Your task to perform on an android device: show emergency info Image 0: 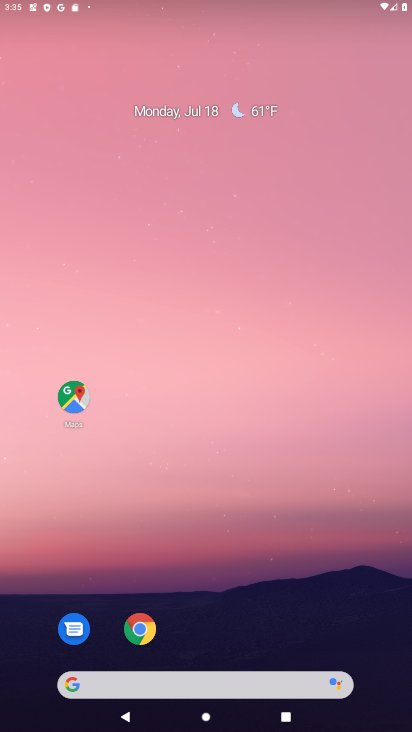
Step 0: press home button
Your task to perform on an android device: show emergency info Image 1: 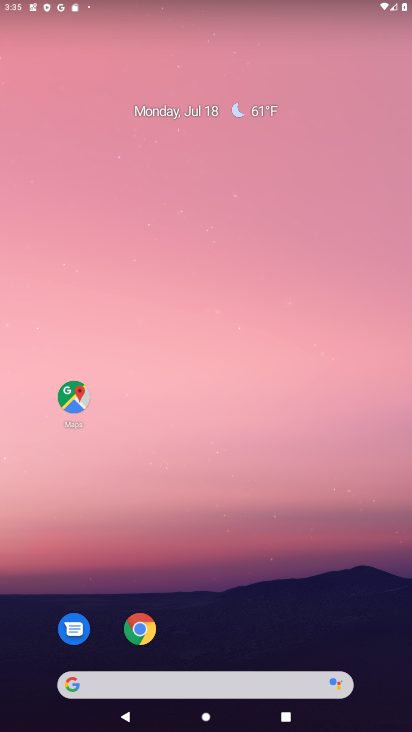
Step 1: drag from (199, 388) to (199, 335)
Your task to perform on an android device: show emergency info Image 2: 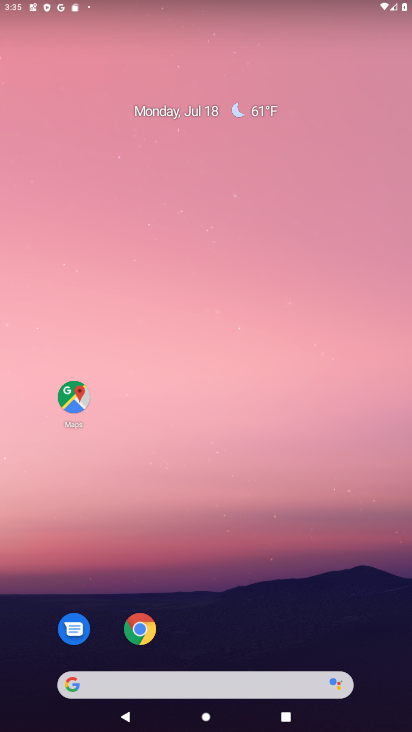
Step 2: drag from (131, 666) to (179, 179)
Your task to perform on an android device: show emergency info Image 3: 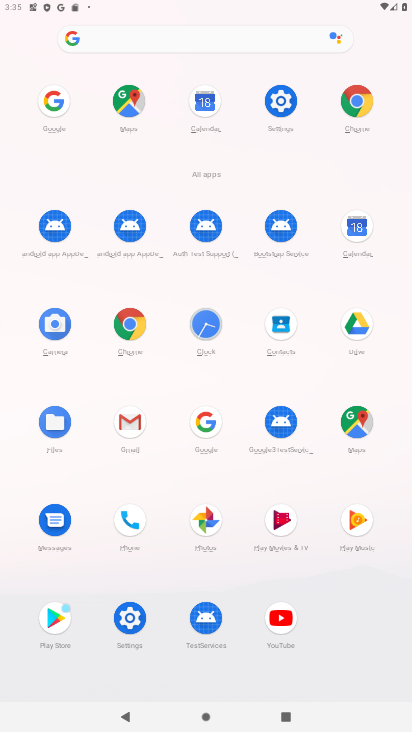
Step 3: click (287, 100)
Your task to perform on an android device: show emergency info Image 4: 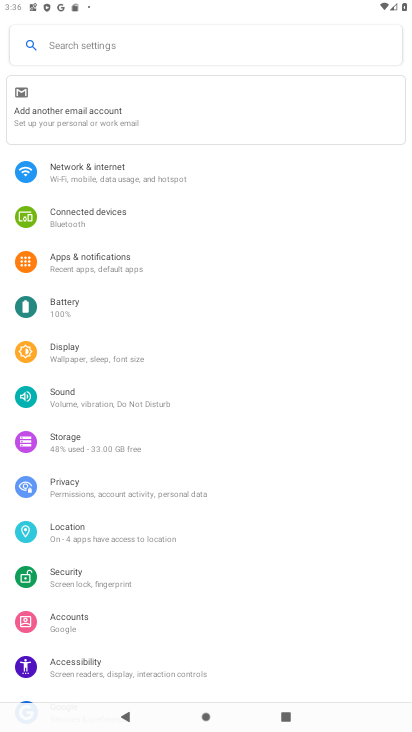
Step 4: drag from (67, 674) to (109, 305)
Your task to perform on an android device: show emergency info Image 5: 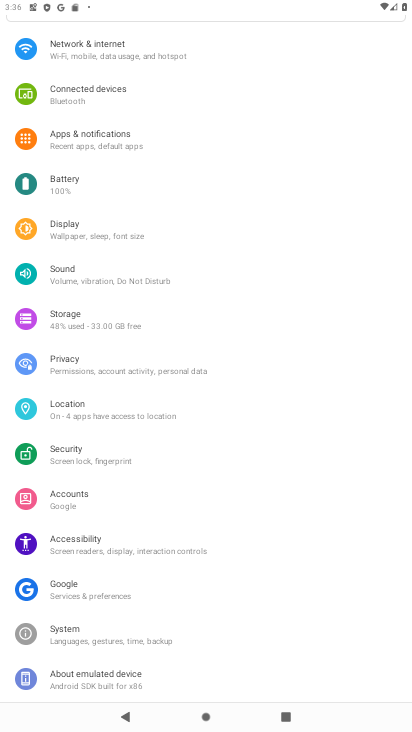
Step 5: click (61, 669)
Your task to perform on an android device: show emergency info Image 6: 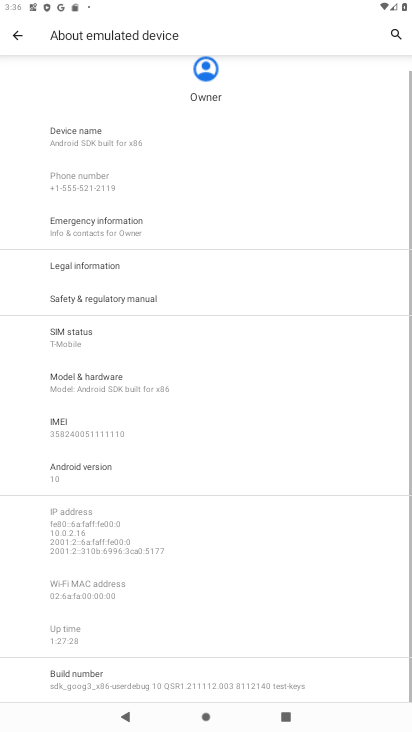
Step 6: click (86, 230)
Your task to perform on an android device: show emergency info Image 7: 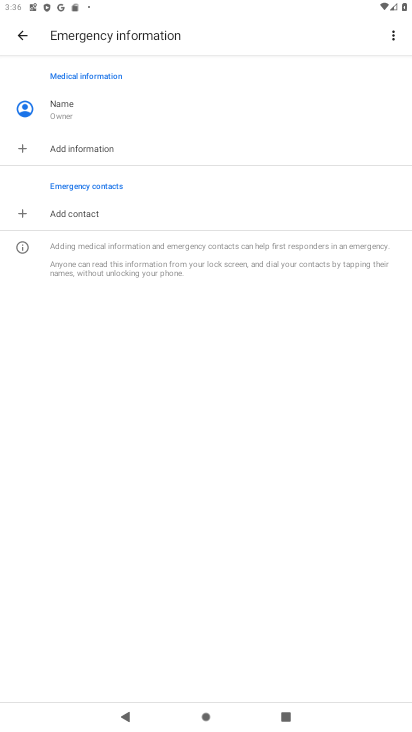
Step 7: task complete